Your task to perform on an android device: check out phone information Image 0: 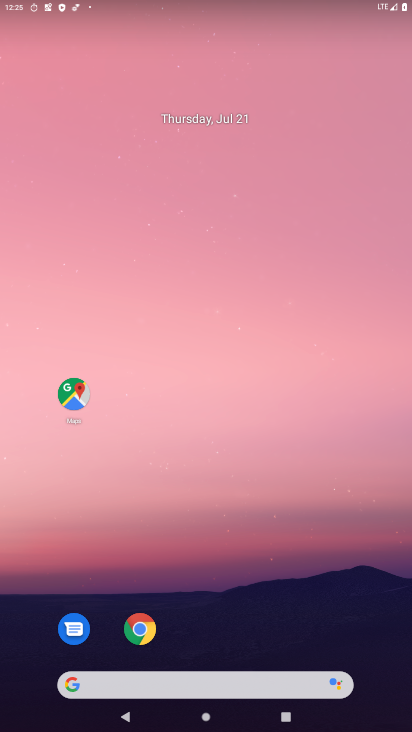
Step 0: drag from (239, 689) to (232, 199)
Your task to perform on an android device: check out phone information Image 1: 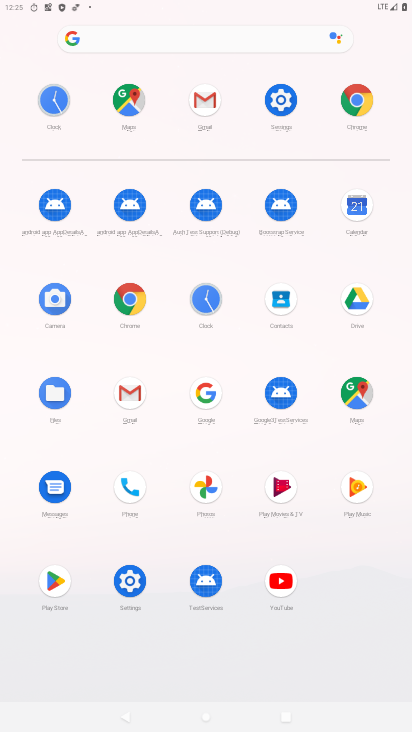
Step 1: click (125, 582)
Your task to perform on an android device: check out phone information Image 2: 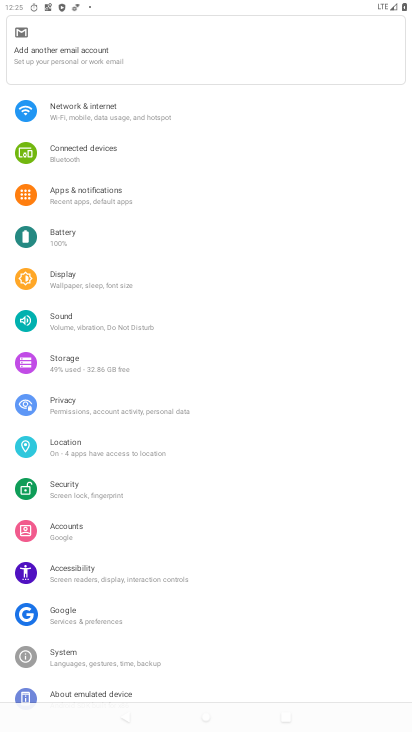
Step 2: click (139, 689)
Your task to perform on an android device: check out phone information Image 3: 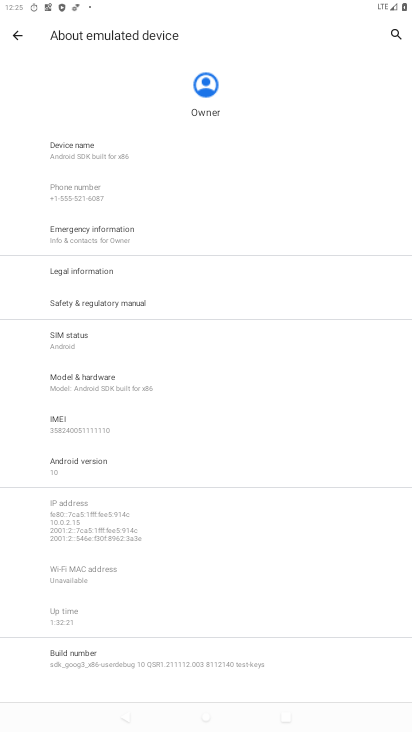
Step 3: task complete